Your task to perform on an android device: see sites visited before in the chrome app Image 0: 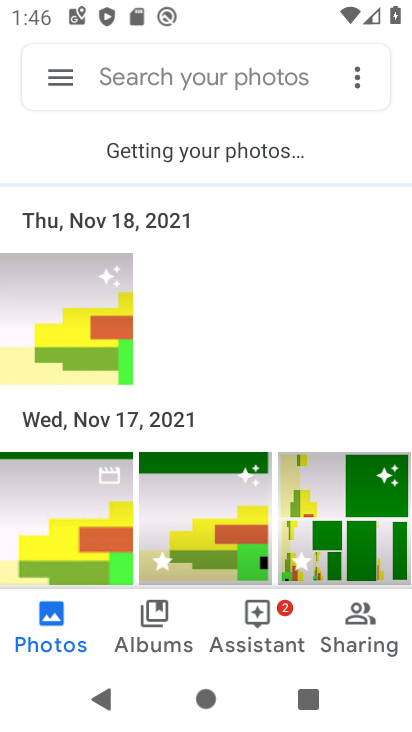
Step 0: press home button
Your task to perform on an android device: see sites visited before in the chrome app Image 1: 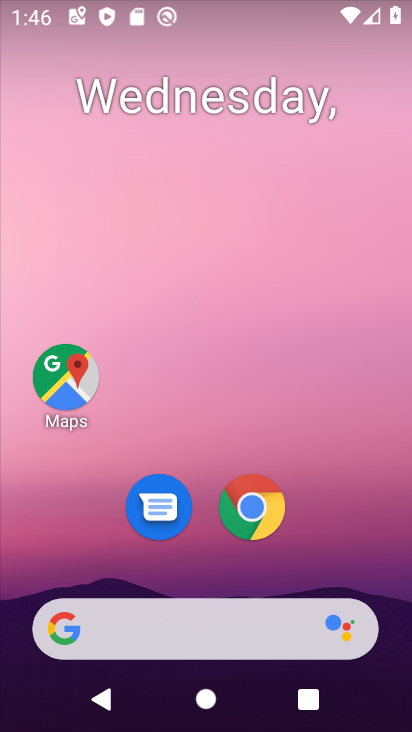
Step 1: drag from (348, 509) to (348, 166)
Your task to perform on an android device: see sites visited before in the chrome app Image 2: 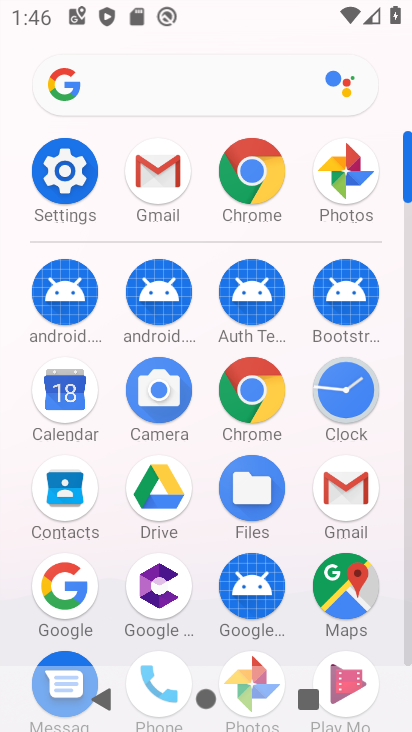
Step 2: click (250, 403)
Your task to perform on an android device: see sites visited before in the chrome app Image 3: 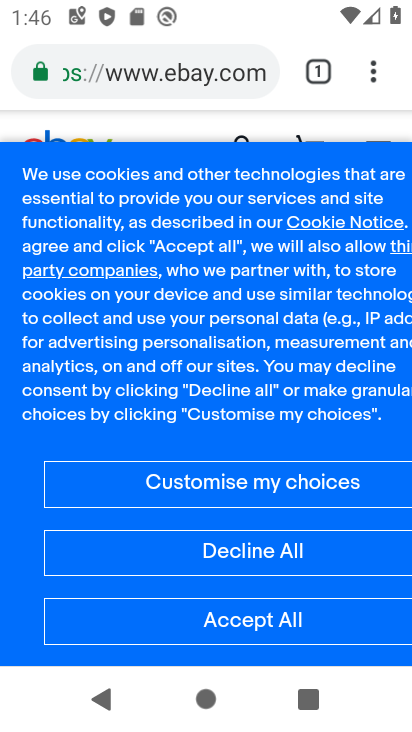
Step 3: task complete